Your task to perform on an android device: check android version Image 0: 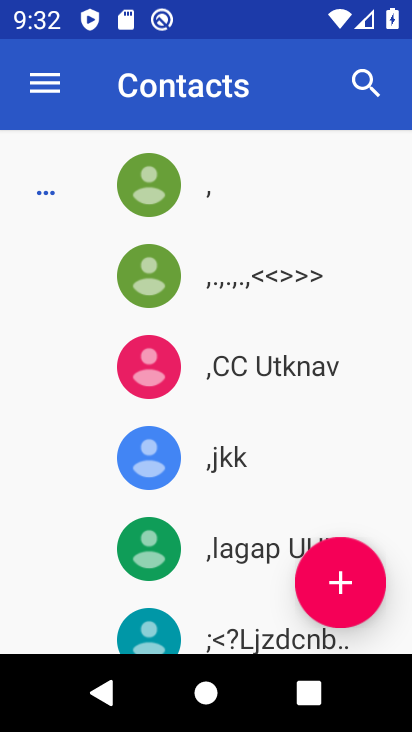
Step 0: press home button
Your task to perform on an android device: check android version Image 1: 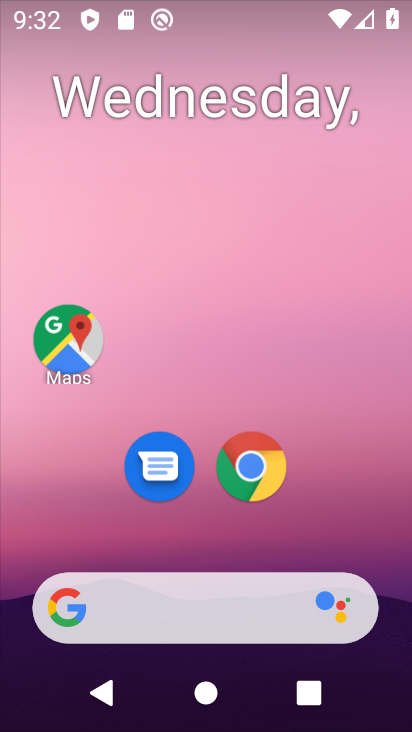
Step 1: drag from (311, 523) to (203, 208)
Your task to perform on an android device: check android version Image 2: 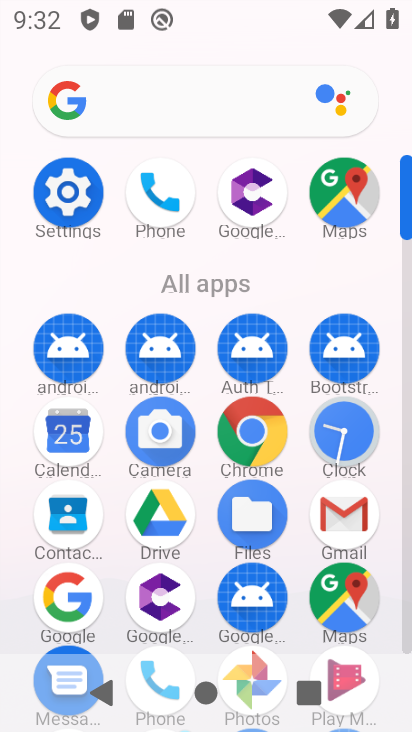
Step 2: click (69, 196)
Your task to perform on an android device: check android version Image 3: 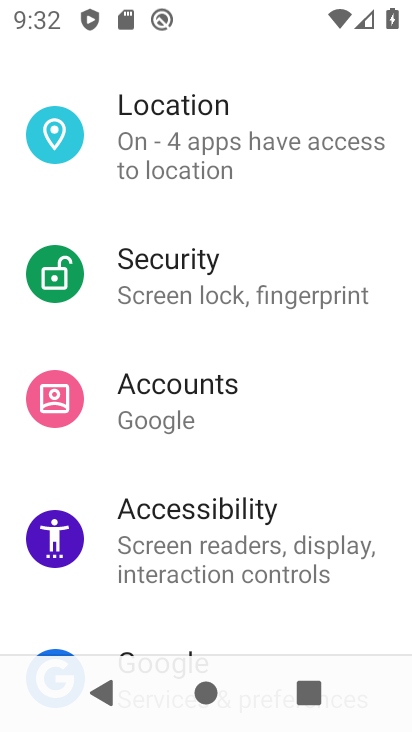
Step 3: drag from (230, 623) to (333, 70)
Your task to perform on an android device: check android version Image 4: 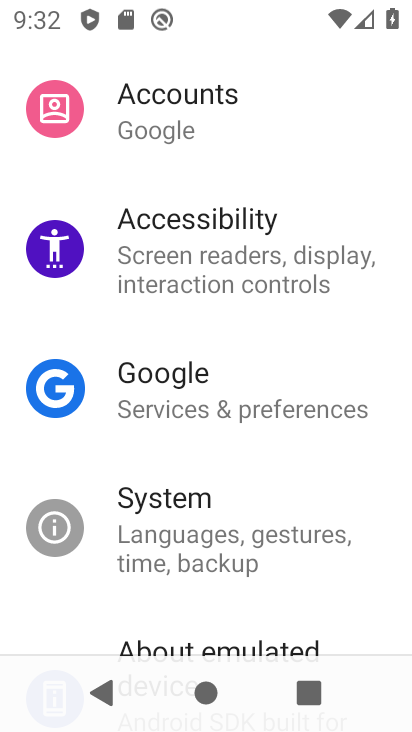
Step 4: drag from (222, 608) to (214, 417)
Your task to perform on an android device: check android version Image 5: 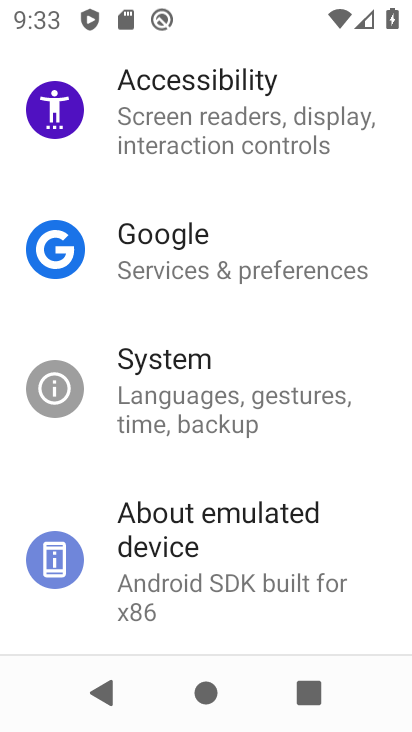
Step 5: click (187, 549)
Your task to perform on an android device: check android version Image 6: 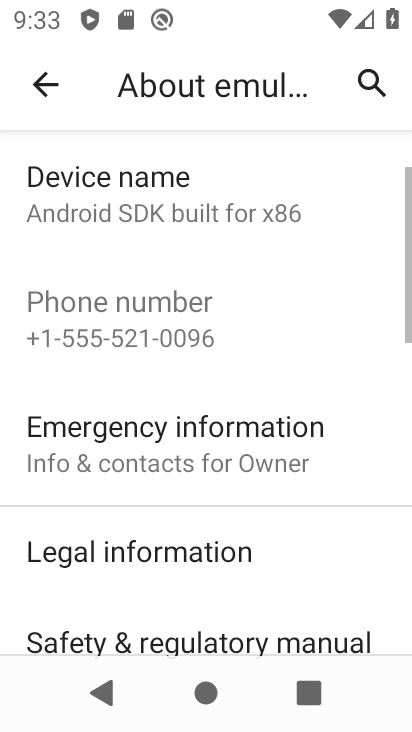
Step 6: drag from (212, 610) to (214, 97)
Your task to perform on an android device: check android version Image 7: 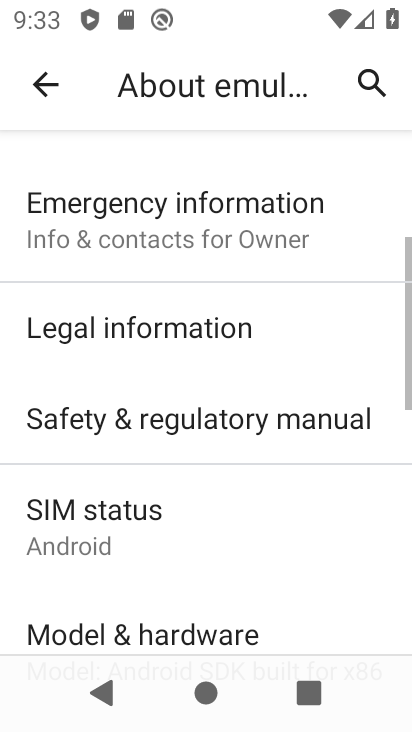
Step 7: drag from (219, 602) to (214, 165)
Your task to perform on an android device: check android version Image 8: 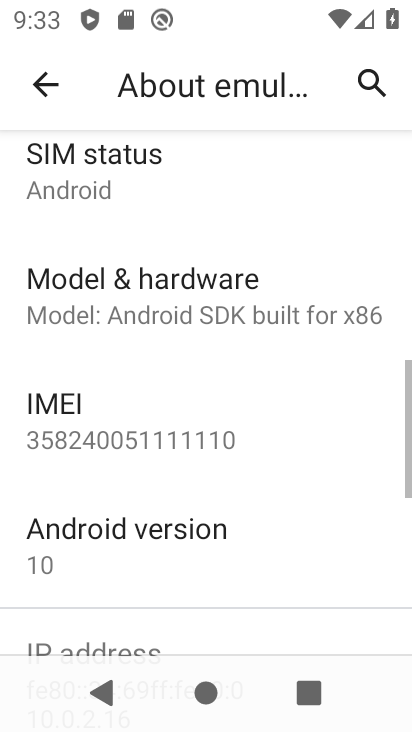
Step 8: click (68, 545)
Your task to perform on an android device: check android version Image 9: 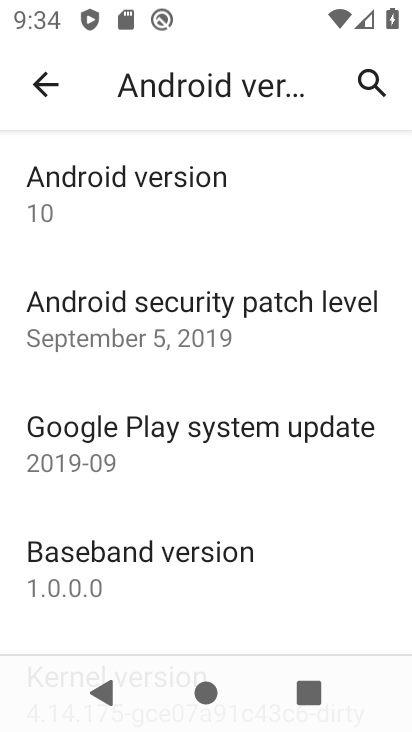
Step 9: task complete